Your task to perform on an android device: find which apps use the phone's location Image 0: 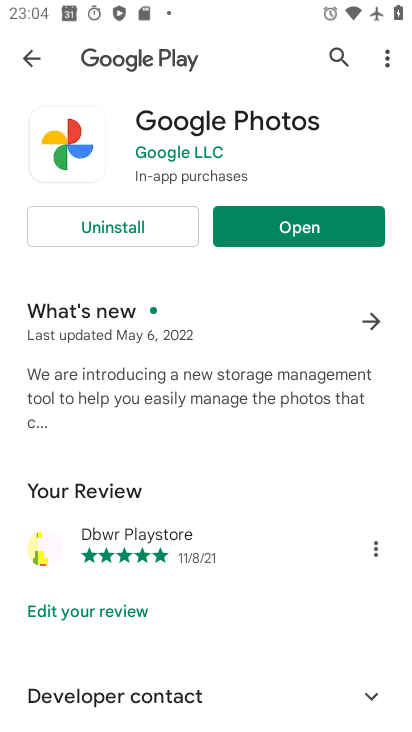
Step 0: press home button
Your task to perform on an android device: find which apps use the phone's location Image 1: 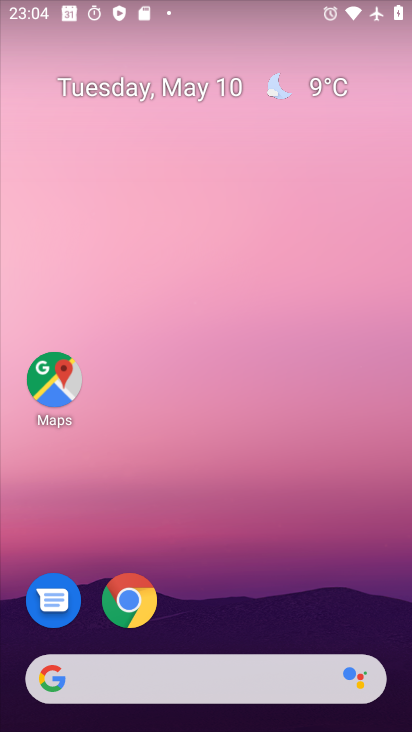
Step 1: drag from (244, 604) to (204, 0)
Your task to perform on an android device: find which apps use the phone's location Image 2: 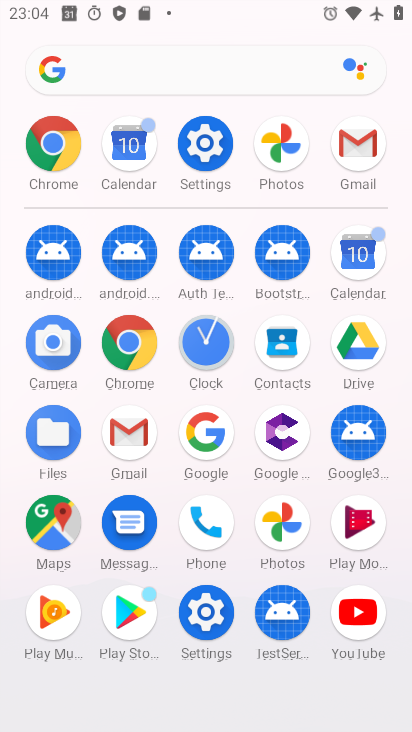
Step 2: click (188, 161)
Your task to perform on an android device: find which apps use the phone's location Image 3: 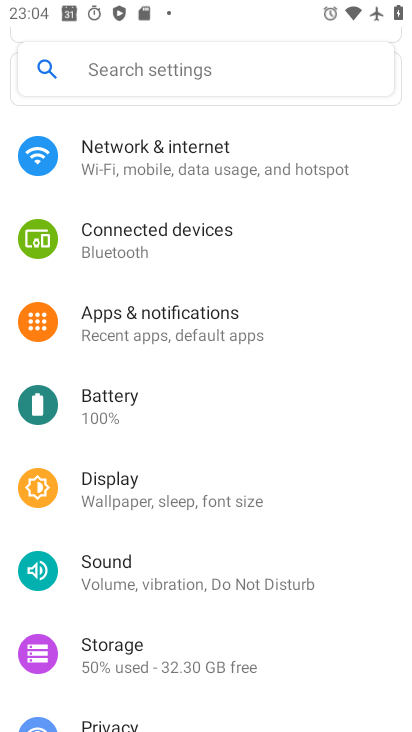
Step 3: drag from (206, 628) to (235, 266)
Your task to perform on an android device: find which apps use the phone's location Image 4: 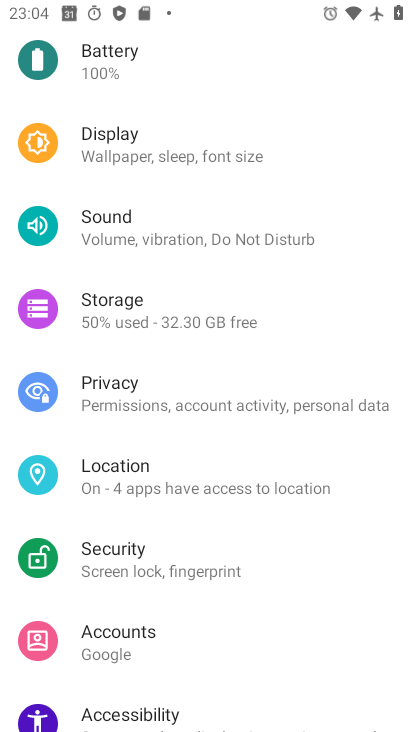
Step 4: click (98, 465)
Your task to perform on an android device: find which apps use the phone's location Image 5: 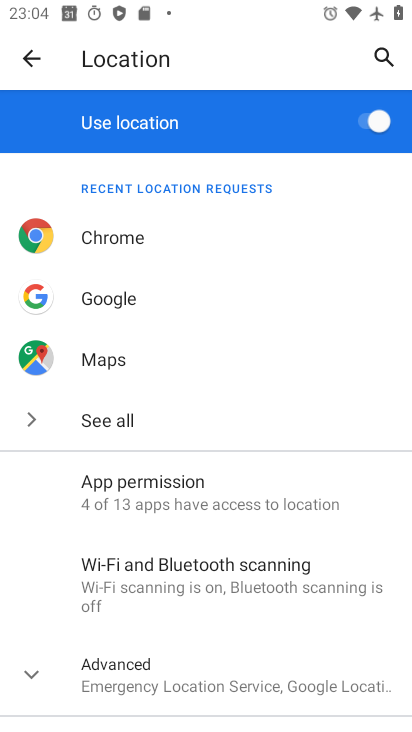
Step 5: click (162, 505)
Your task to perform on an android device: find which apps use the phone's location Image 6: 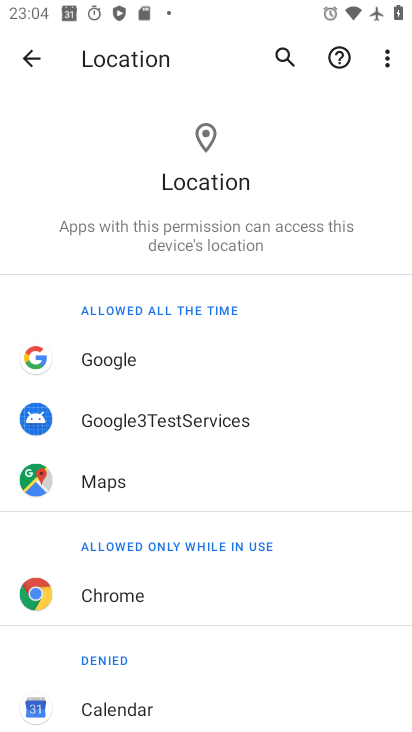
Step 6: task complete